Your task to perform on an android device: change the clock display to analog Image 0: 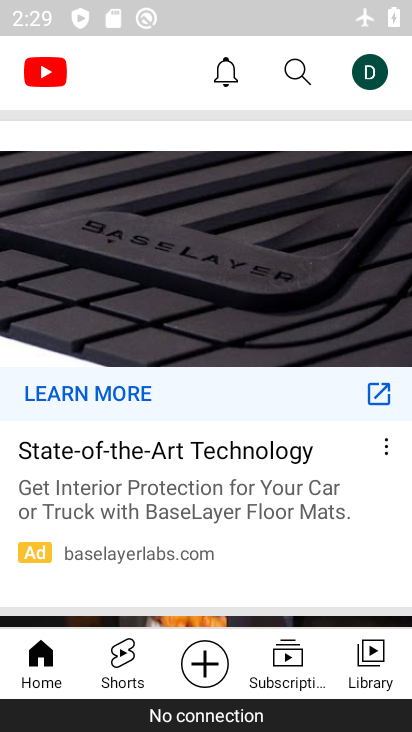
Step 0: press back button
Your task to perform on an android device: change the clock display to analog Image 1: 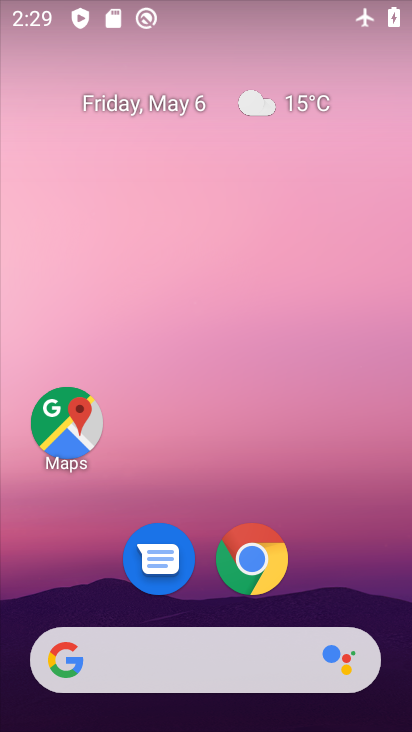
Step 1: drag from (344, 595) to (292, 262)
Your task to perform on an android device: change the clock display to analog Image 2: 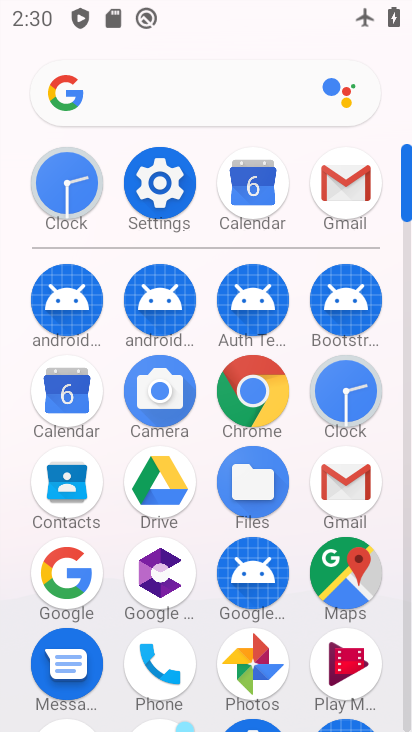
Step 2: click (157, 183)
Your task to perform on an android device: change the clock display to analog Image 3: 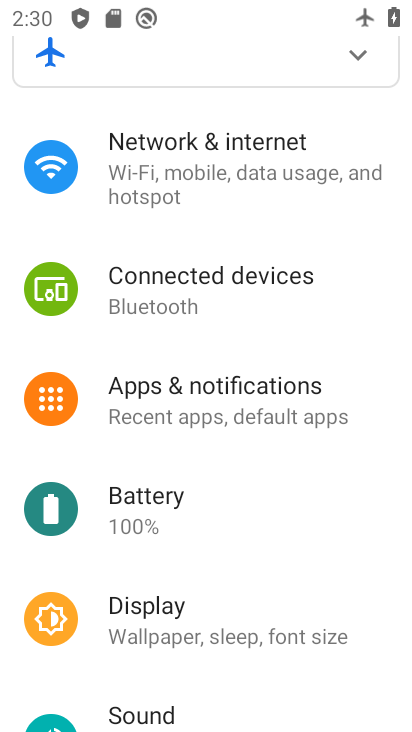
Step 3: press home button
Your task to perform on an android device: change the clock display to analog Image 4: 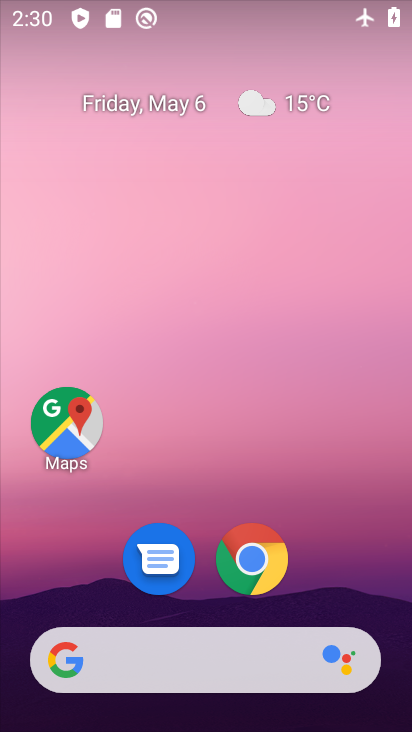
Step 4: drag from (350, 576) to (342, 206)
Your task to perform on an android device: change the clock display to analog Image 5: 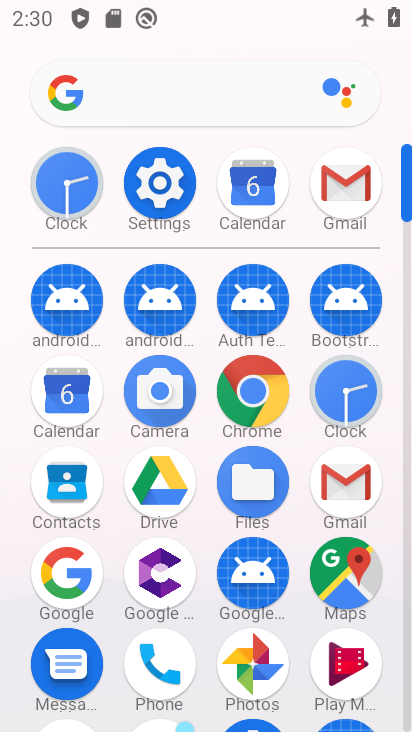
Step 5: click (69, 169)
Your task to perform on an android device: change the clock display to analog Image 6: 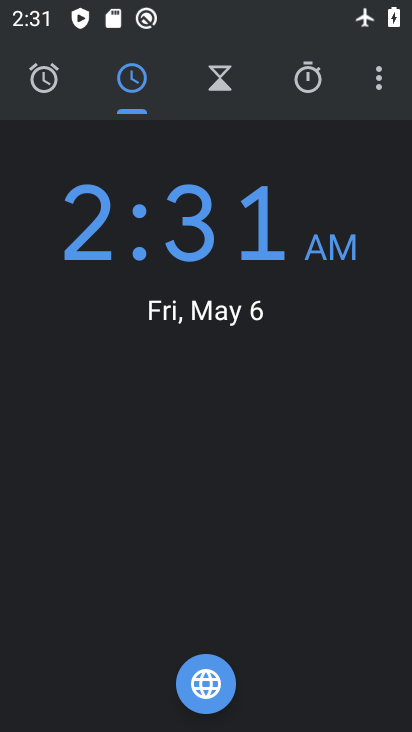
Step 6: click (367, 87)
Your task to perform on an android device: change the clock display to analog Image 7: 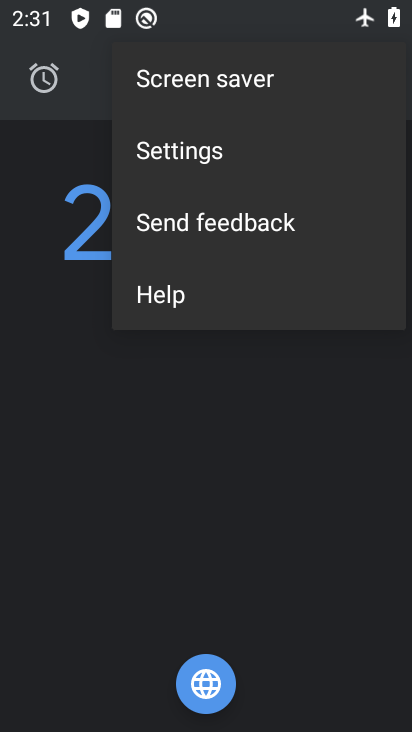
Step 7: click (261, 135)
Your task to perform on an android device: change the clock display to analog Image 8: 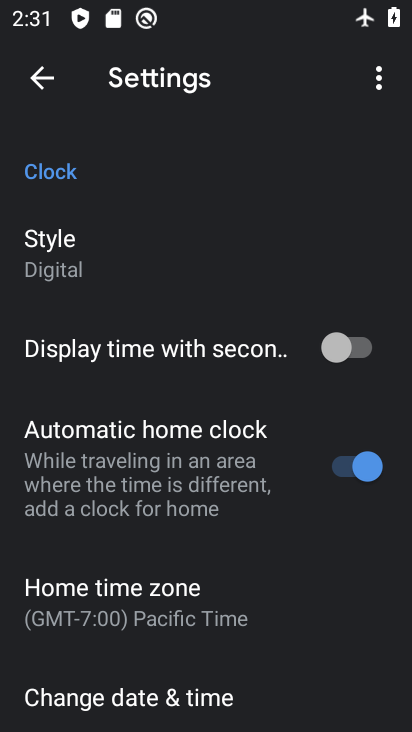
Step 8: click (136, 242)
Your task to perform on an android device: change the clock display to analog Image 9: 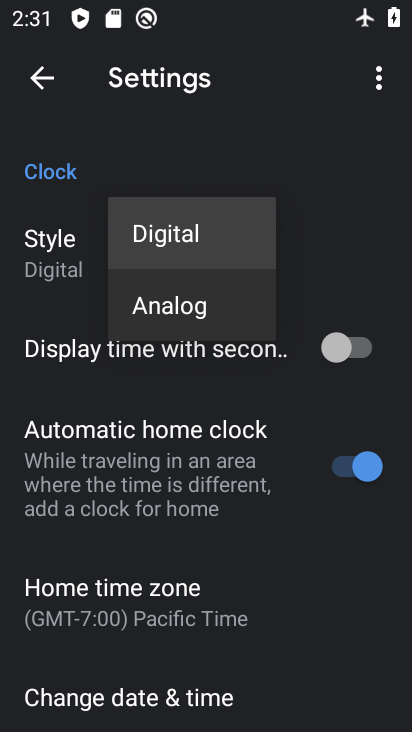
Step 9: click (170, 298)
Your task to perform on an android device: change the clock display to analog Image 10: 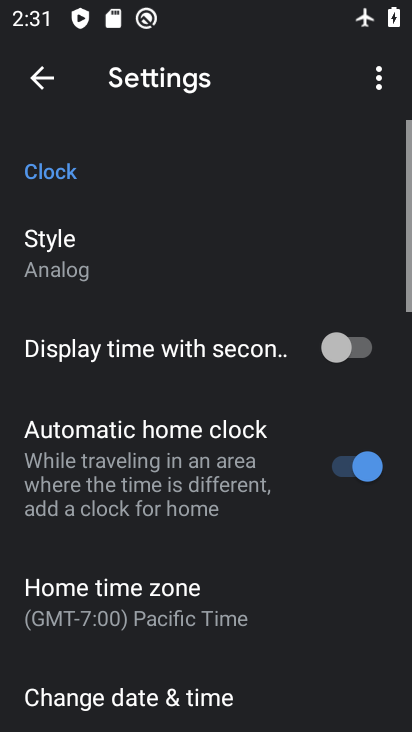
Step 10: task complete